Your task to perform on an android device: Search for Mexican restaurants on Maps Image 0: 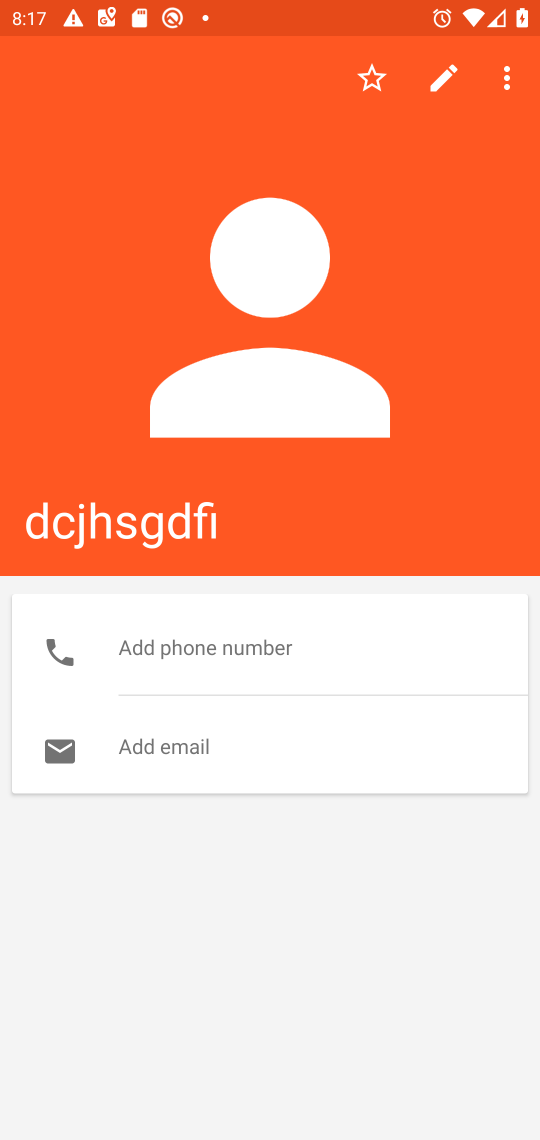
Step 0: press home button
Your task to perform on an android device: Search for Mexican restaurants on Maps Image 1: 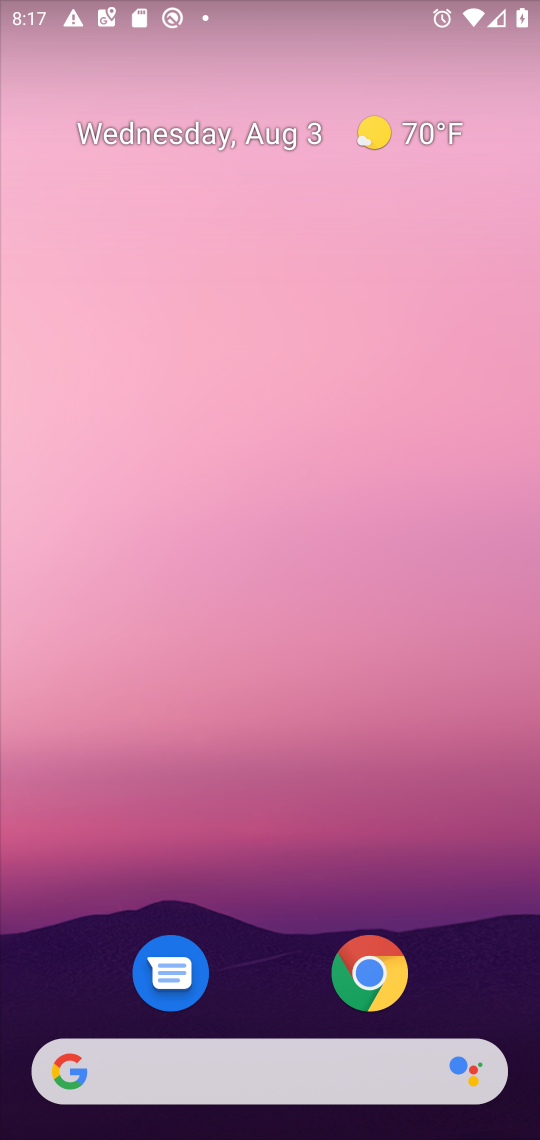
Step 1: press home button
Your task to perform on an android device: Search for Mexican restaurants on Maps Image 2: 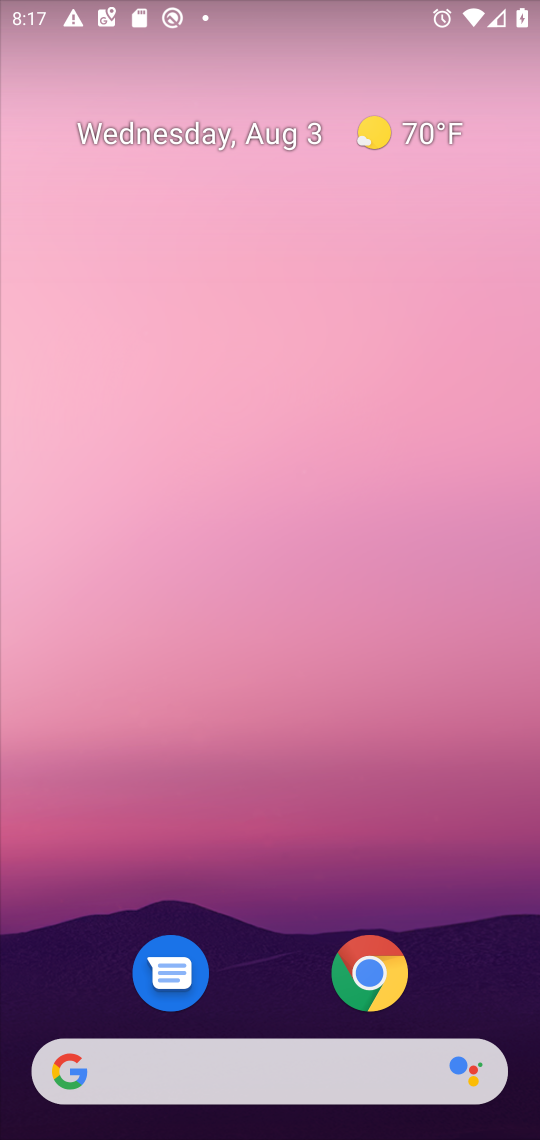
Step 2: drag from (283, 1018) to (309, 115)
Your task to perform on an android device: Search for Mexican restaurants on Maps Image 3: 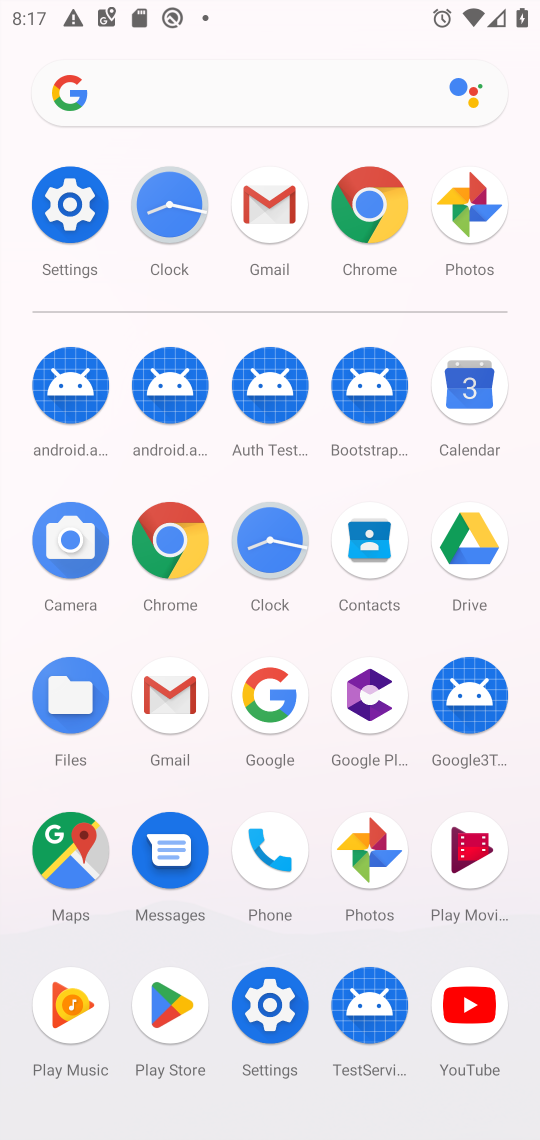
Step 3: click (61, 843)
Your task to perform on an android device: Search for Mexican restaurants on Maps Image 4: 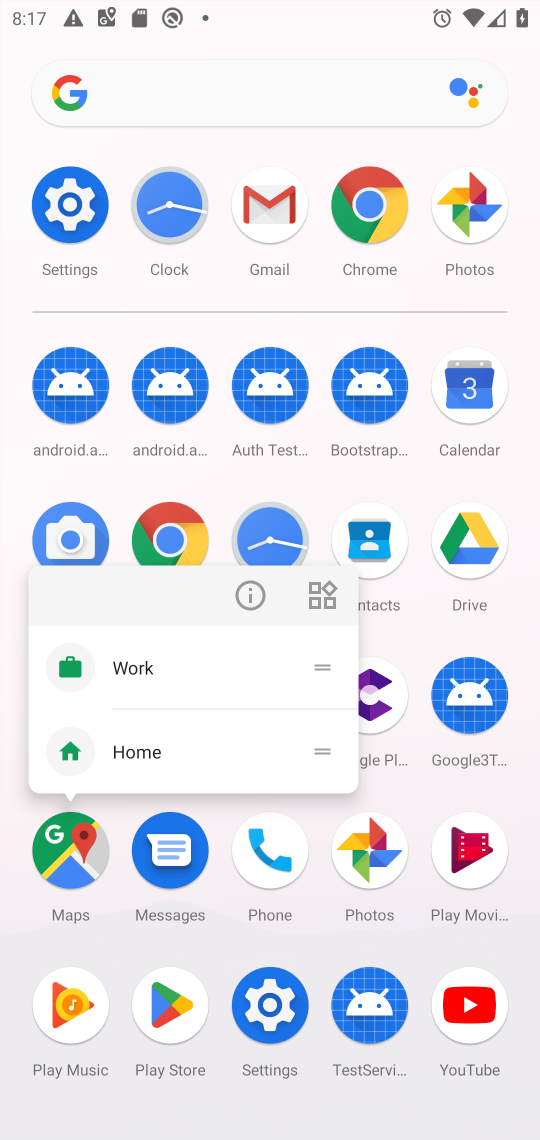
Step 4: click (69, 839)
Your task to perform on an android device: Search for Mexican restaurants on Maps Image 5: 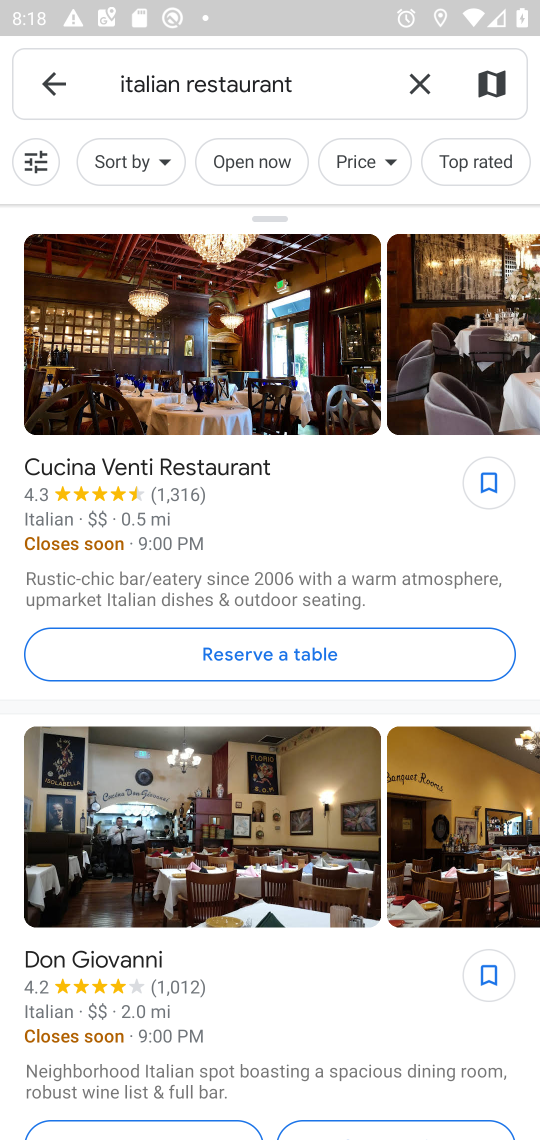
Step 5: click (409, 81)
Your task to perform on an android device: Search for Mexican restaurants on Maps Image 6: 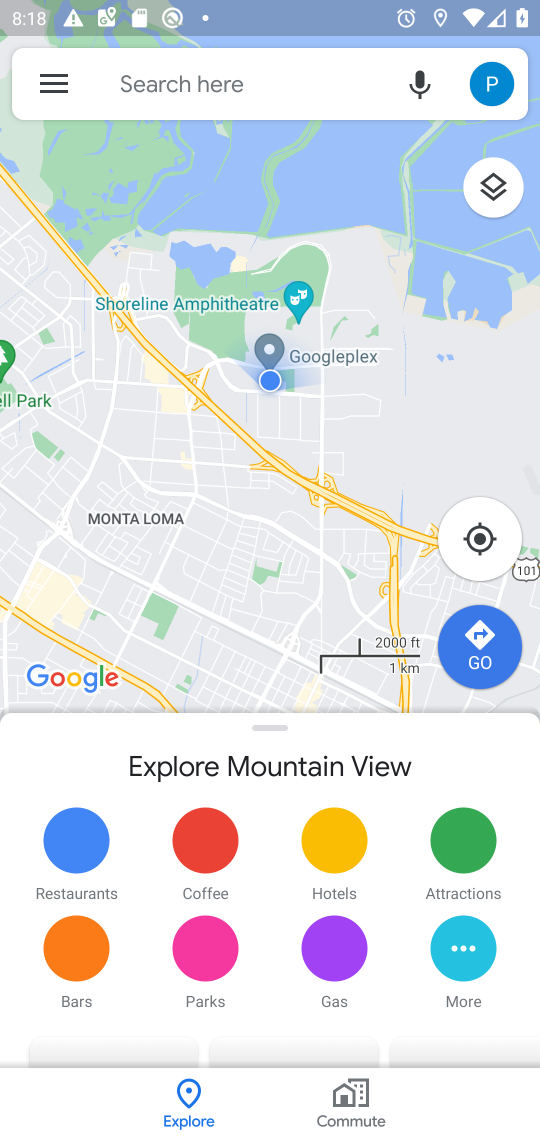
Step 6: click (202, 88)
Your task to perform on an android device: Search for Mexican restaurants on Maps Image 7: 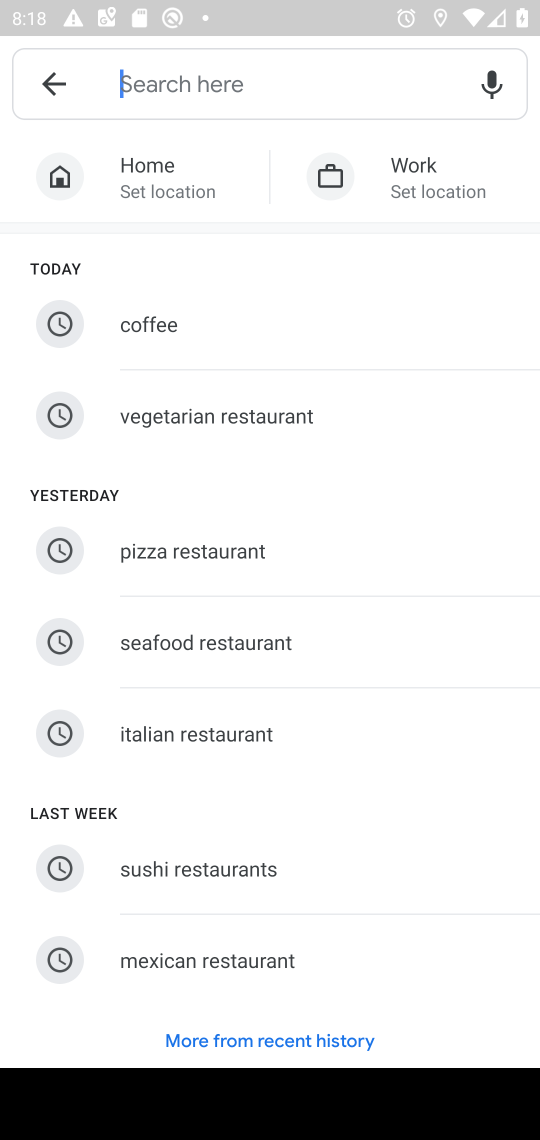
Step 7: click (236, 953)
Your task to perform on an android device: Search for Mexican restaurants on Maps Image 8: 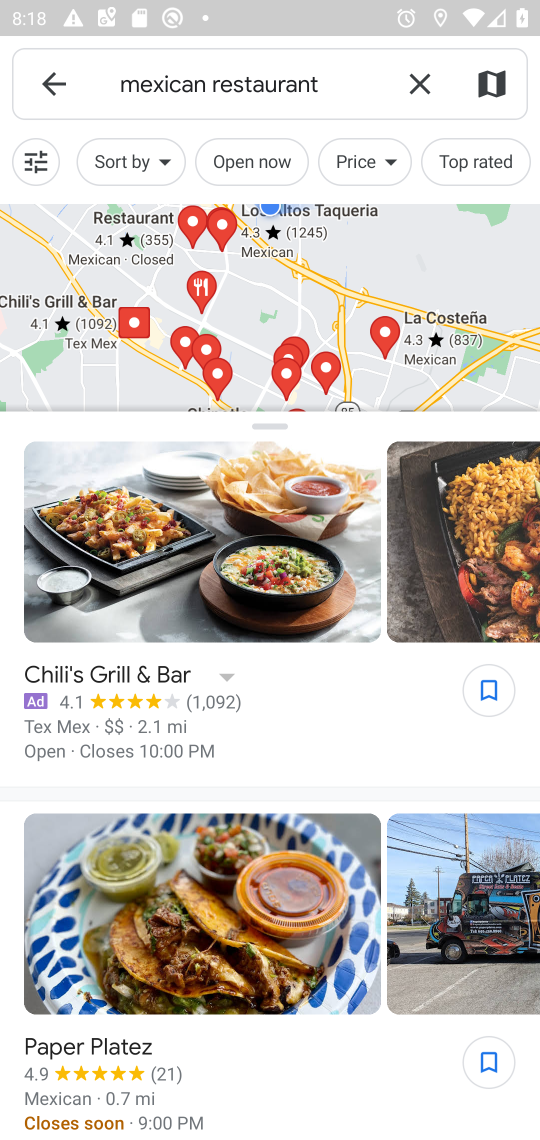
Step 8: task complete